Your task to perform on an android device: Go to Wikipedia Image 0: 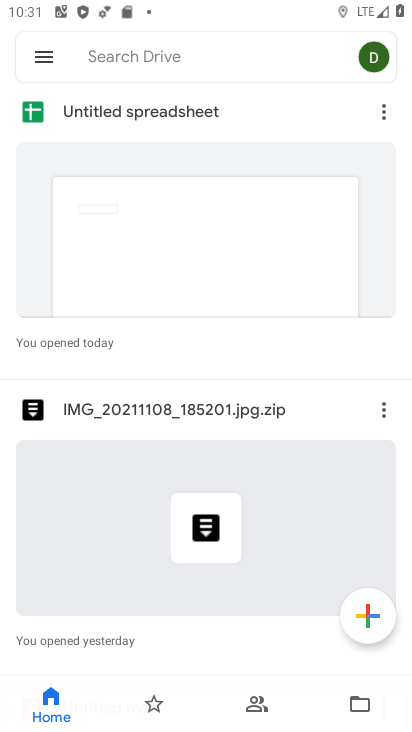
Step 0: press home button
Your task to perform on an android device: Go to Wikipedia Image 1: 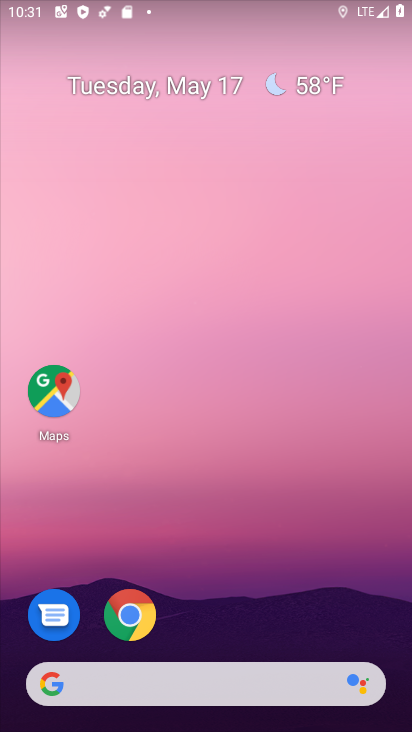
Step 1: click (170, 691)
Your task to perform on an android device: Go to Wikipedia Image 2: 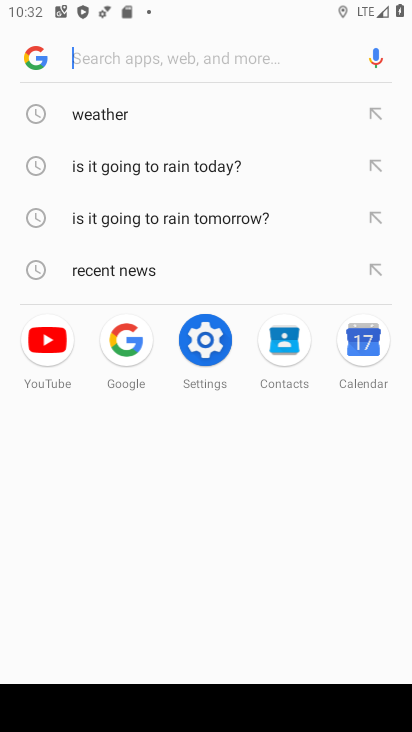
Step 2: type "Wikipedia"
Your task to perform on an android device: Go to Wikipedia Image 3: 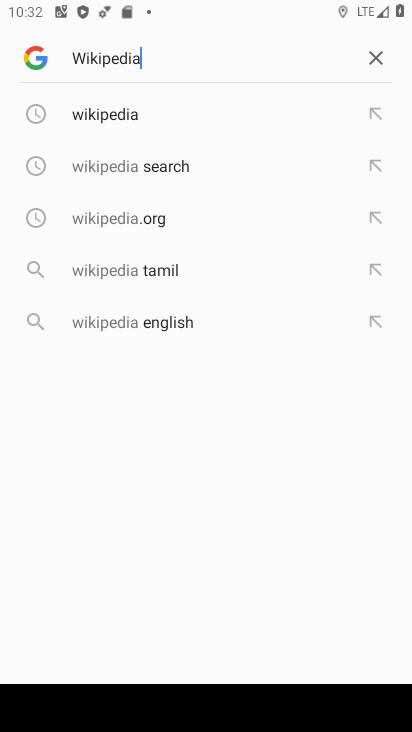
Step 3: click (135, 117)
Your task to perform on an android device: Go to Wikipedia Image 4: 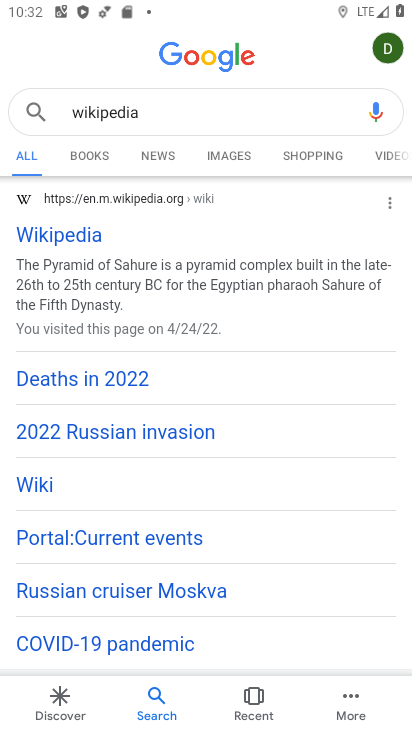
Step 4: click (81, 224)
Your task to perform on an android device: Go to Wikipedia Image 5: 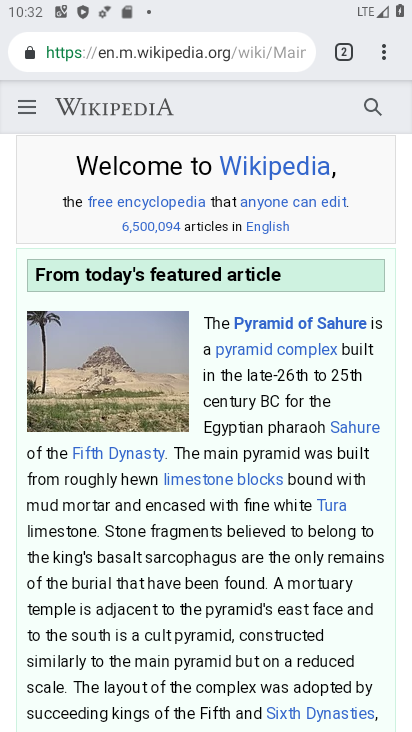
Step 5: task complete